Your task to perform on an android device: Show me recent news Image 0: 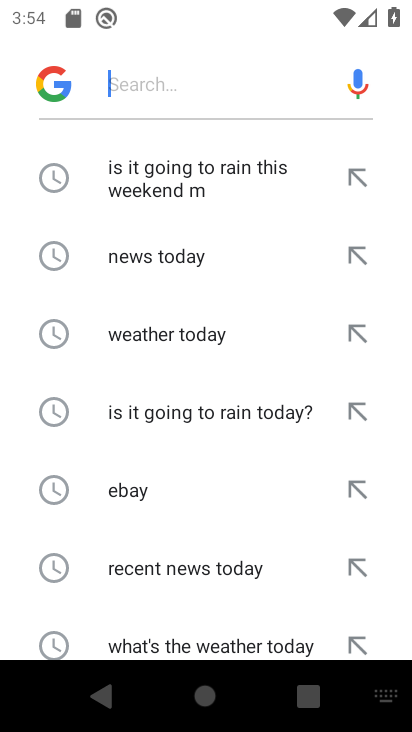
Step 0: press home button
Your task to perform on an android device: Show me recent news Image 1: 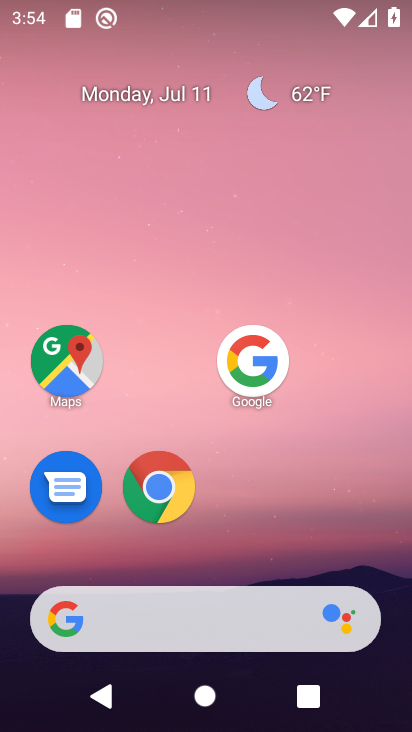
Step 1: click (178, 611)
Your task to perform on an android device: Show me recent news Image 2: 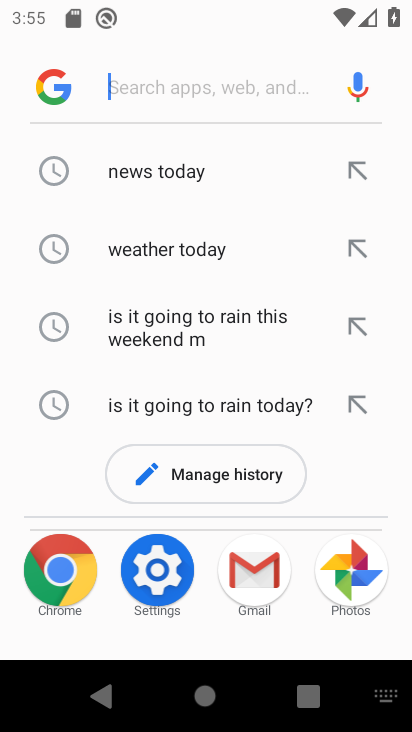
Step 2: click (205, 172)
Your task to perform on an android device: Show me recent news Image 3: 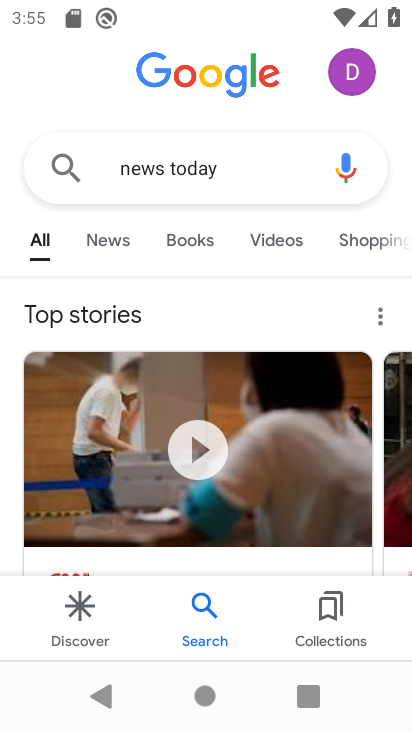
Step 3: task complete